Your task to perform on an android device: Open the calendar app, open the side menu, and click the "Day" option Image 0: 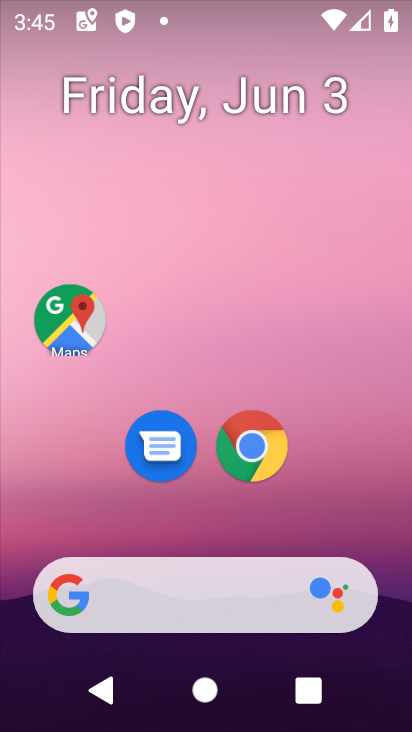
Step 0: task complete